Your task to perform on an android device: Go to internet settings Image 0: 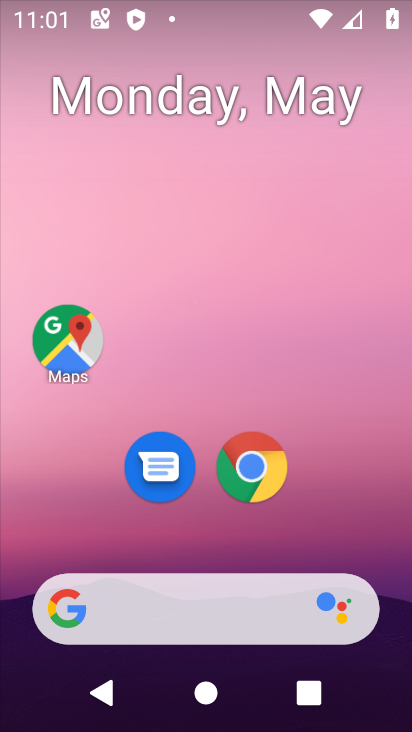
Step 0: drag from (218, 424) to (255, 67)
Your task to perform on an android device: Go to internet settings Image 1: 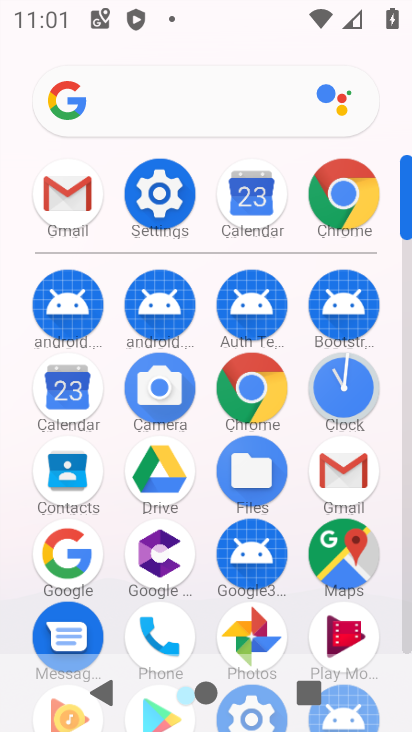
Step 1: click (158, 195)
Your task to perform on an android device: Go to internet settings Image 2: 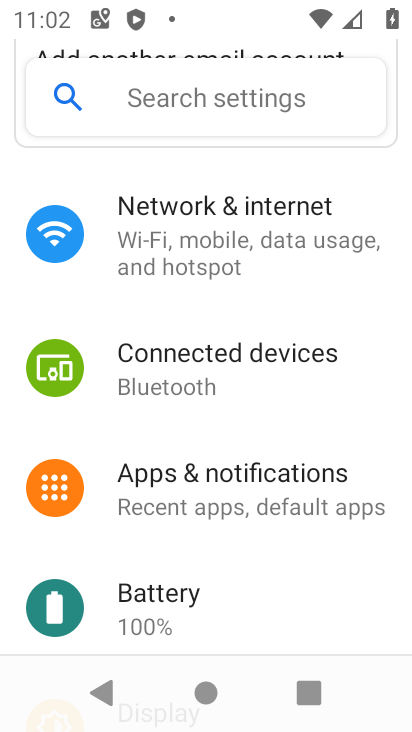
Step 2: click (192, 246)
Your task to perform on an android device: Go to internet settings Image 3: 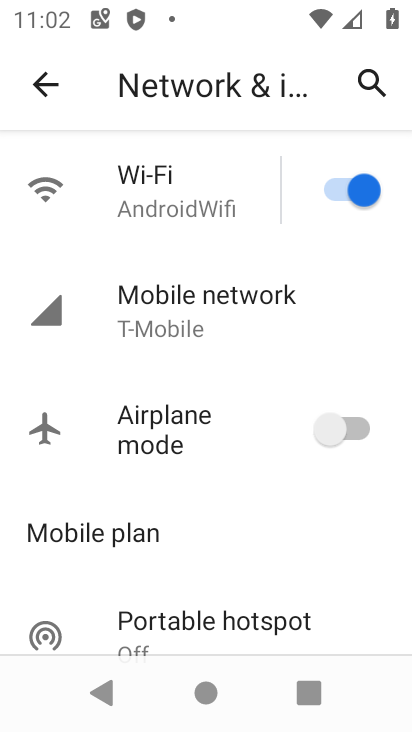
Step 3: click (190, 301)
Your task to perform on an android device: Go to internet settings Image 4: 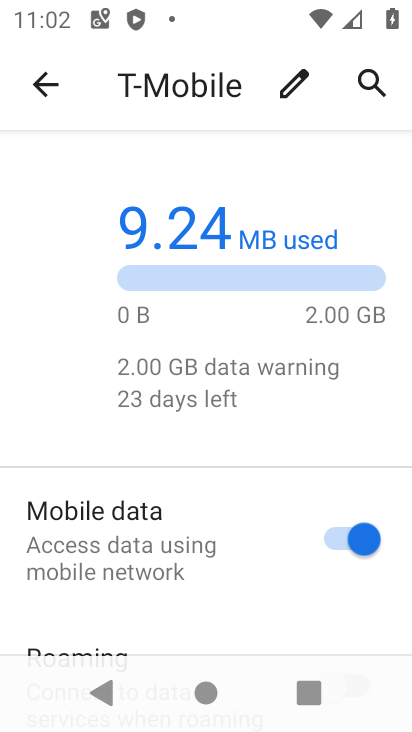
Step 4: task complete